Your task to perform on an android device: When is my next meeting? Image 0: 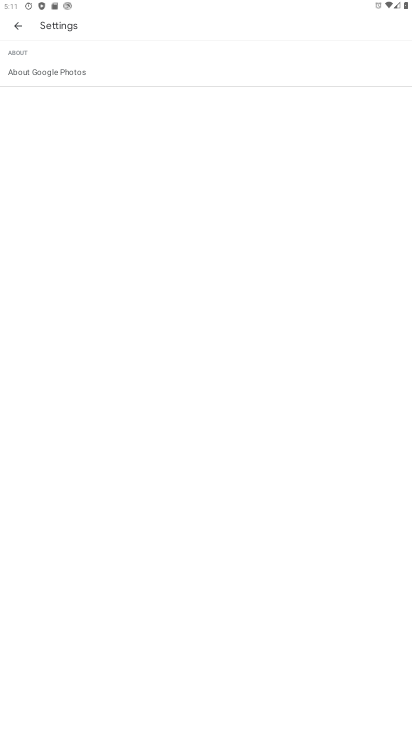
Step 0: press home button
Your task to perform on an android device: When is my next meeting? Image 1: 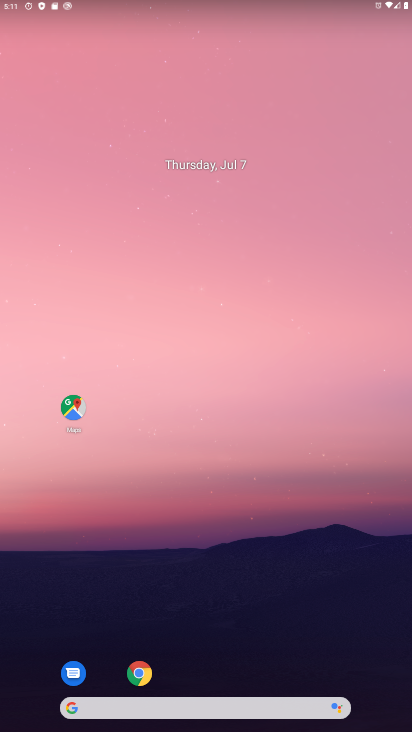
Step 1: drag from (222, 723) to (308, 248)
Your task to perform on an android device: When is my next meeting? Image 2: 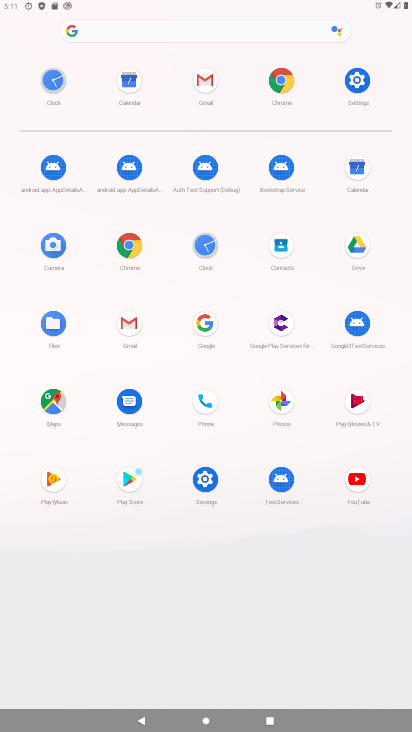
Step 2: click (357, 172)
Your task to perform on an android device: When is my next meeting? Image 3: 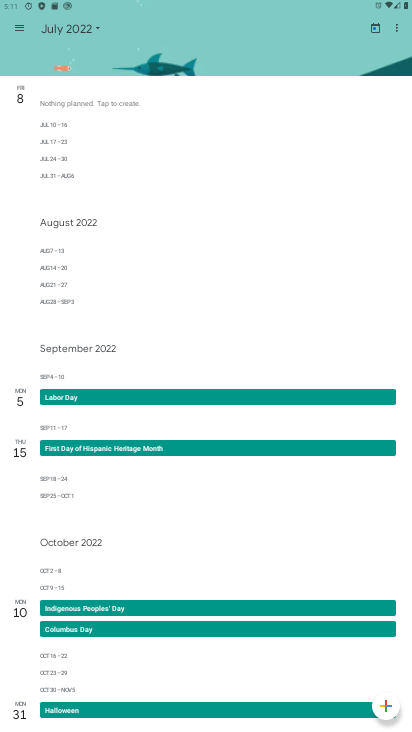
Step 3: click (93, 28)
Your task to perform on an android device: When is my next meeting? Image 4: 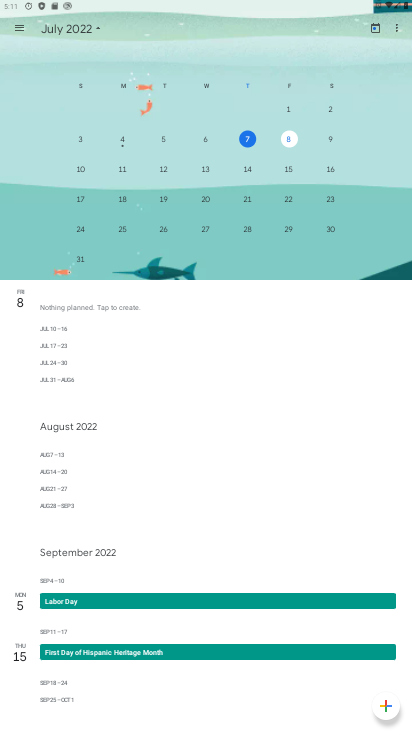
Step 4: click (289, 142)
Your task to perform on an android device: When is my next meeting? Image 5: 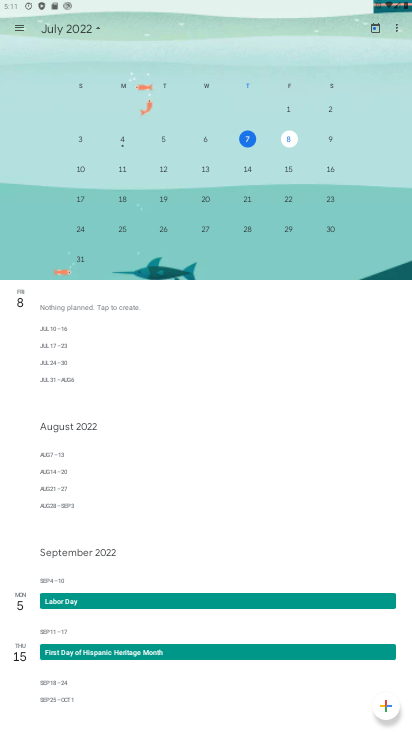
Step 5: click (291, 138)
Your task to perform on an android device: When is my next meeting? Image 6: 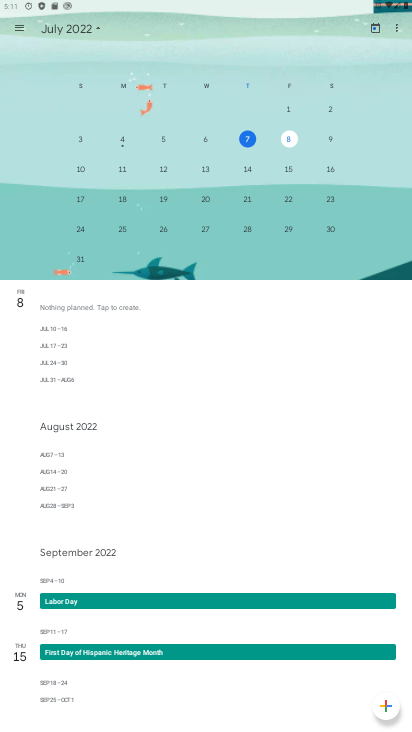
Step 6: task complete